Your task to perform on an android device: open app "Google Find My Device" (install if not already installed) Image 0: 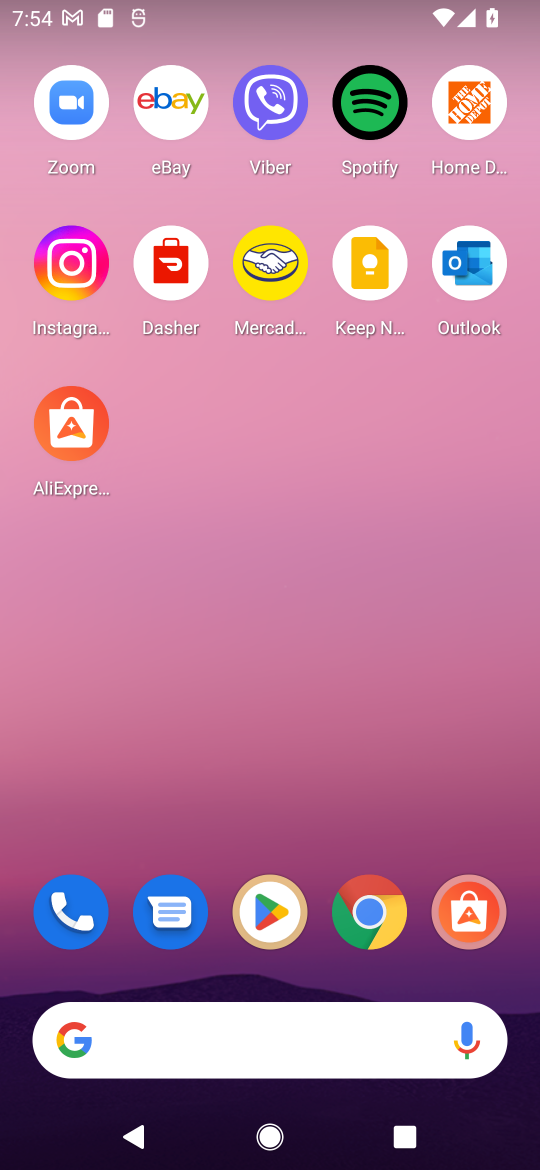
Step 0: click (266, 909)
Your task to perform on an android device: open app "Google Find My Device" (install if not already installed) Image 1: 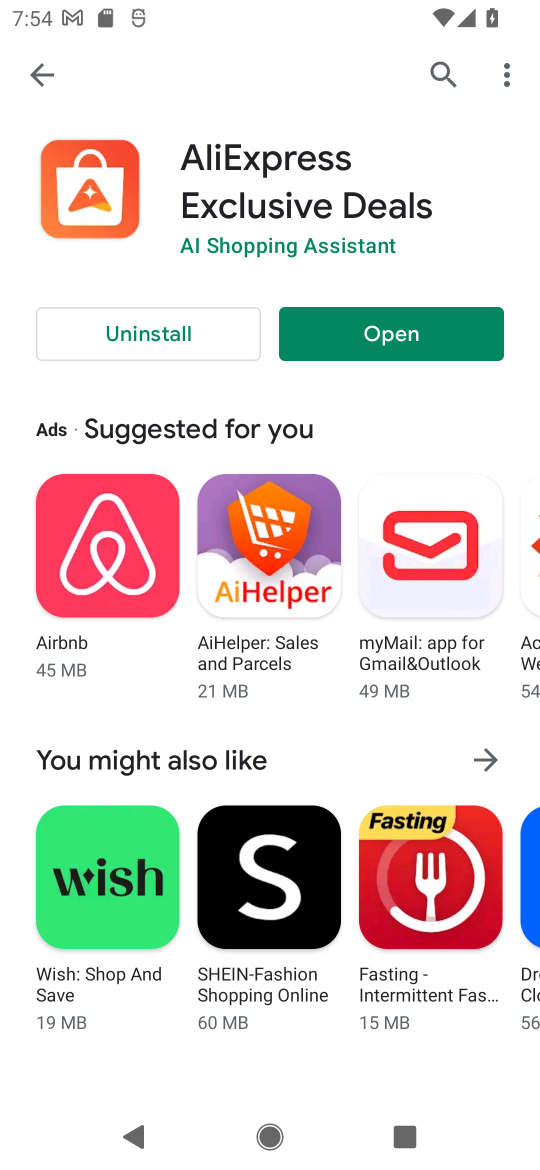
Step 1: click (446, 61)
Your task to perform on an android device: open app "Google Find My Device" (install if not already installed) Image 2: 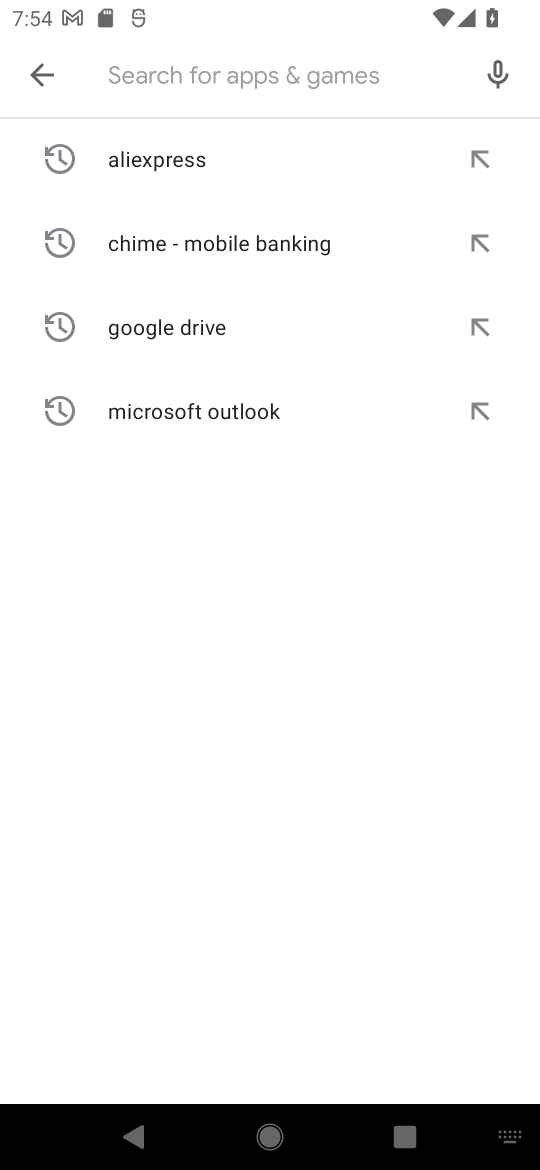
Step 2: type "Google Find My Device"
Your task to perform on an android device: open app "Google Find My Device" (install if not already installed) Image 3: 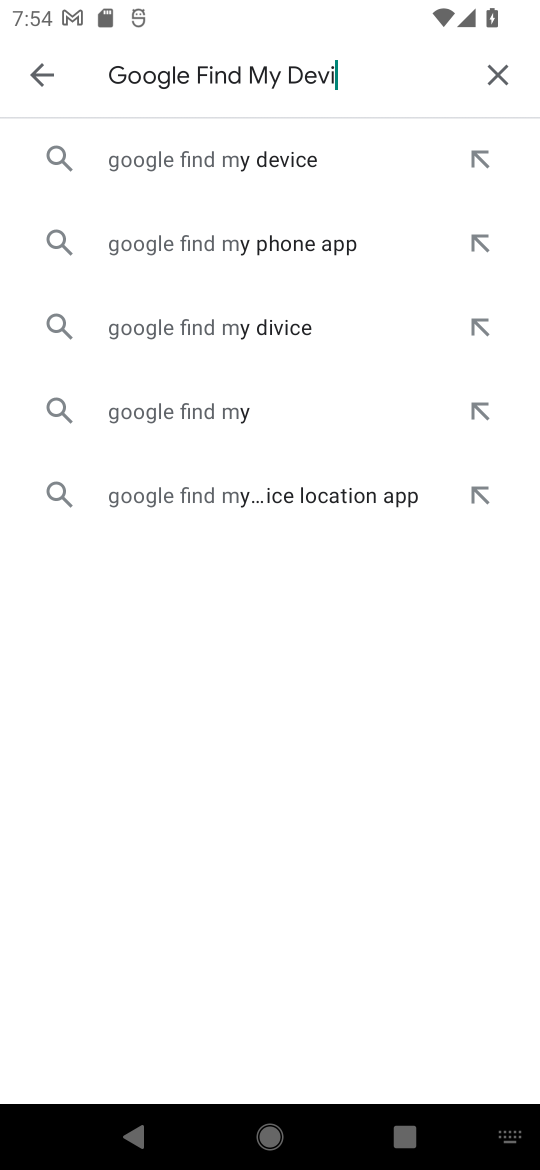
Step 3: type ""
Your task to perform on an android device: open app "Google Find My Device" (install if not already installed) Image 4: 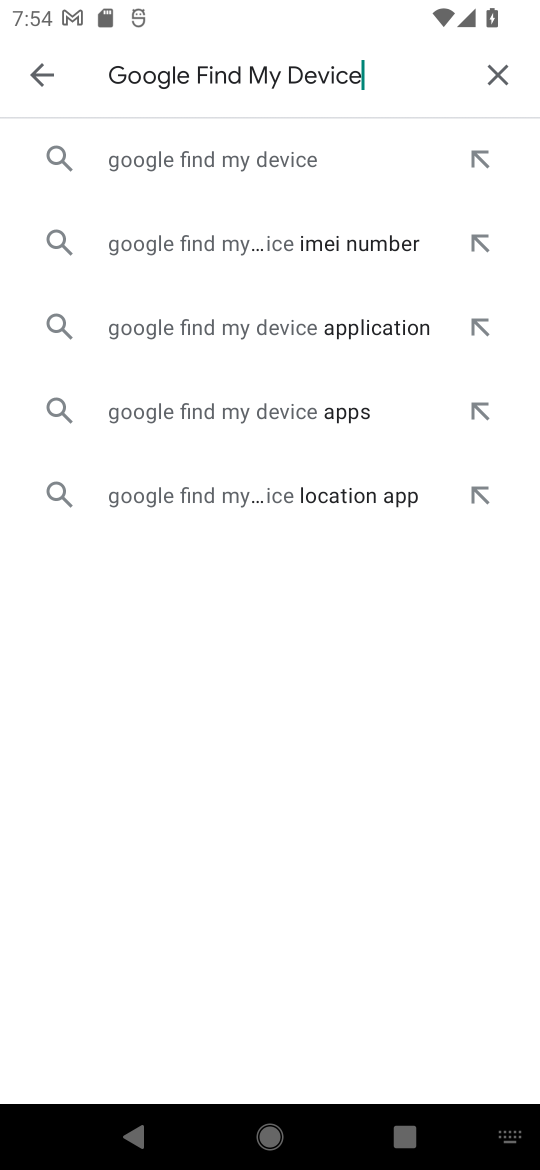
Step 4: click (222, 155)
Your task to perform on an android device: open app "Google Find My Device" (install if not already installed) Image 5: 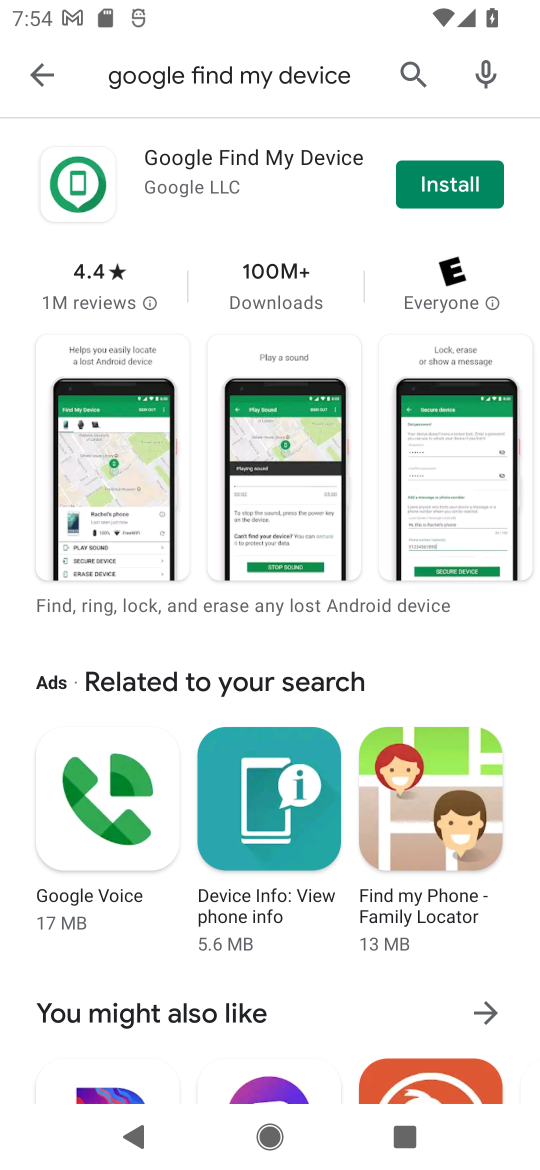
Step 5: click (475, 181)
Your task to perform on an android device: open app "Google Find My Device" (install if not already installed) Image 6: 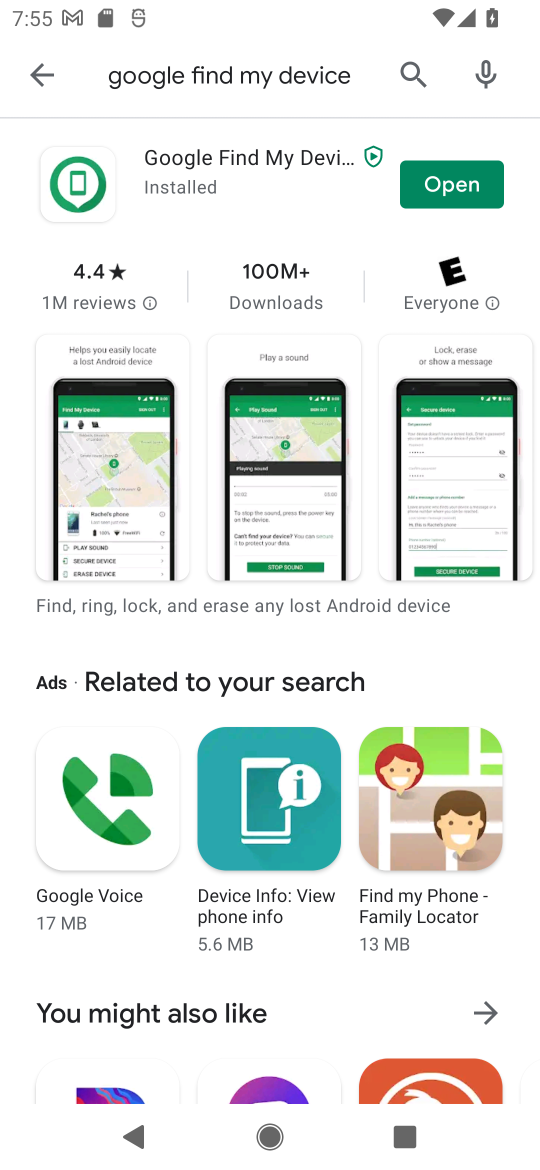
Step 6: click (446, 183)
Your task to perform on an android device: open app "Google Find My Device" (install if not already installed) Image 7: 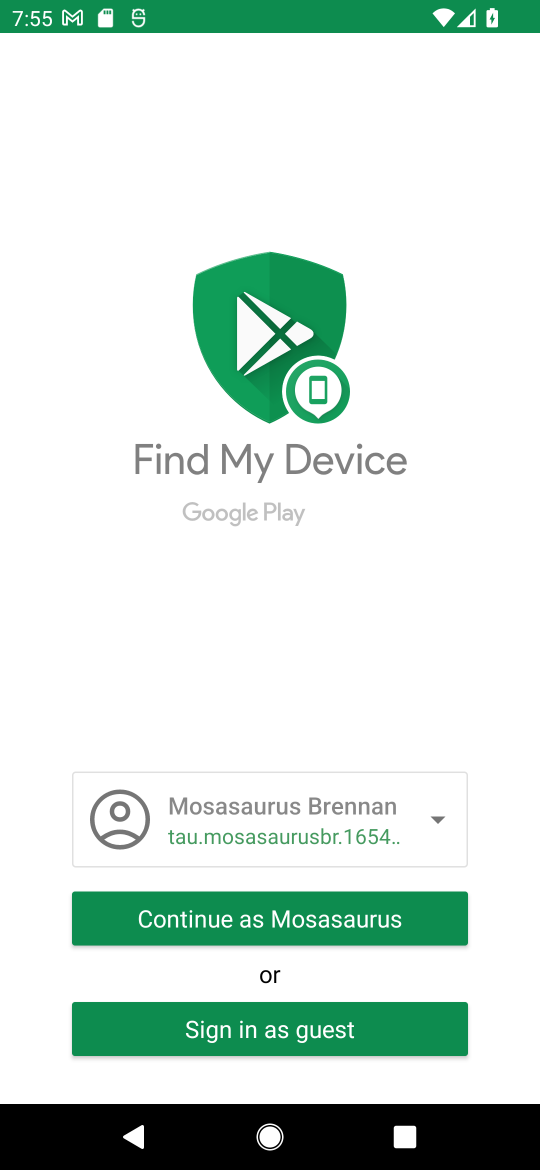
Step 7: press home button
Your task to perform on an android device: open app "Google Find My Device" (install if not already installed) Image 8: 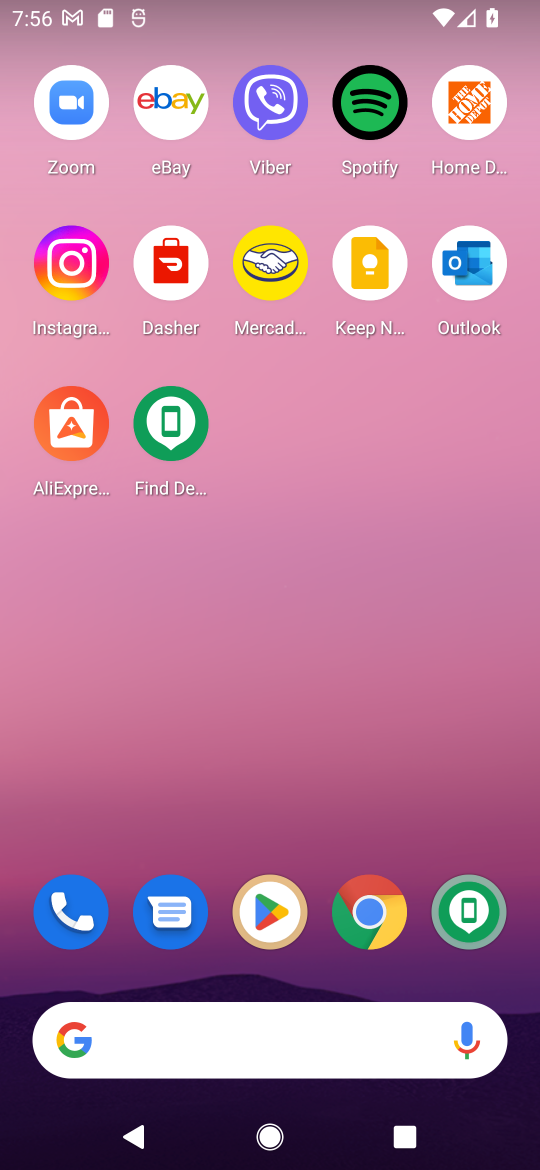
Step 8: click (260, 918)
Your task to perform on an android device: open app "Google Find My Device" (install if not already installed) Image 9: 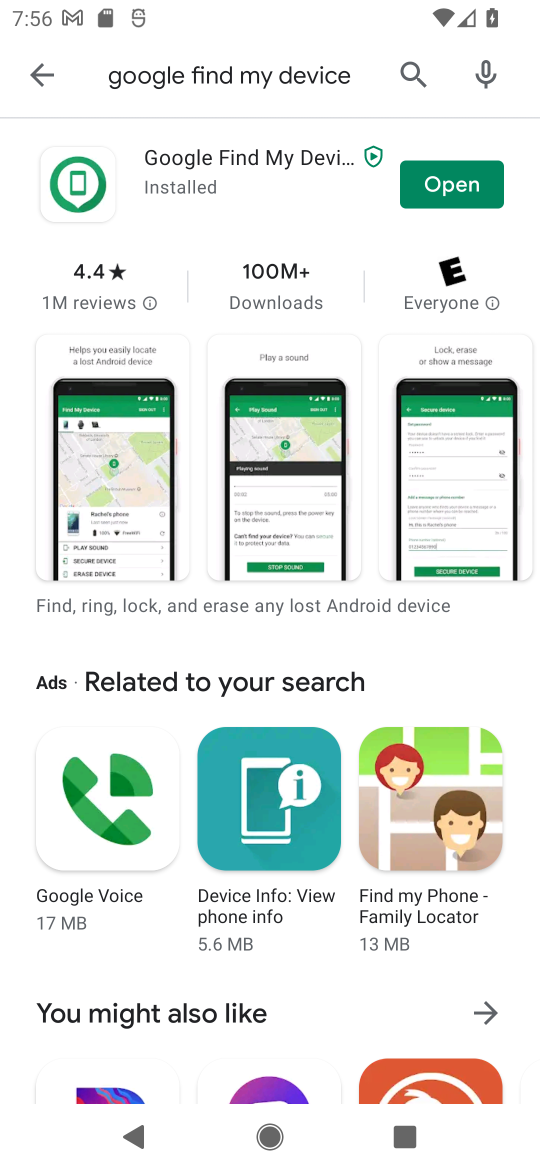
Step 9: click (447, 191)
Your task to perform on an android device: open app "Google Find My Device" (install if not already installed) Image 10: 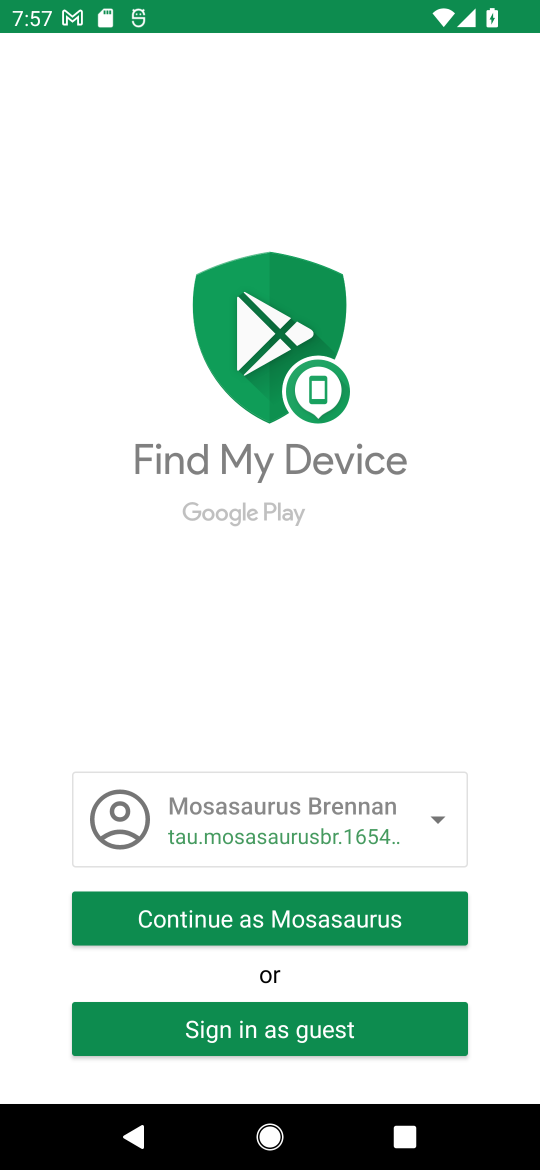
Step 10: task complete